Your task to perform on an android device: open device folders in google photos Image 0: 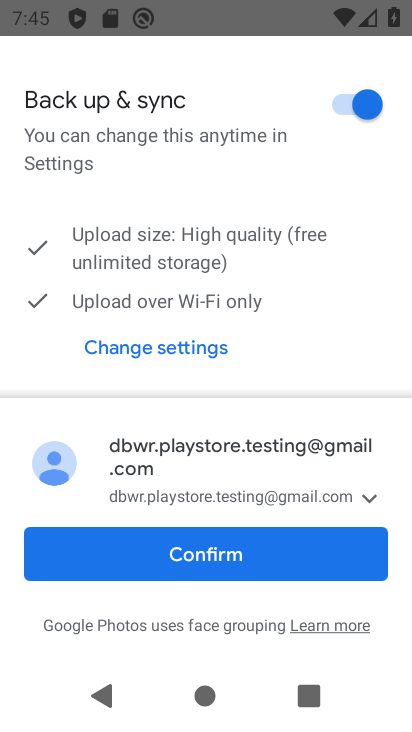
Step 0: press home button
Your task to perform on an android device: open device folders in google photos Image 1: 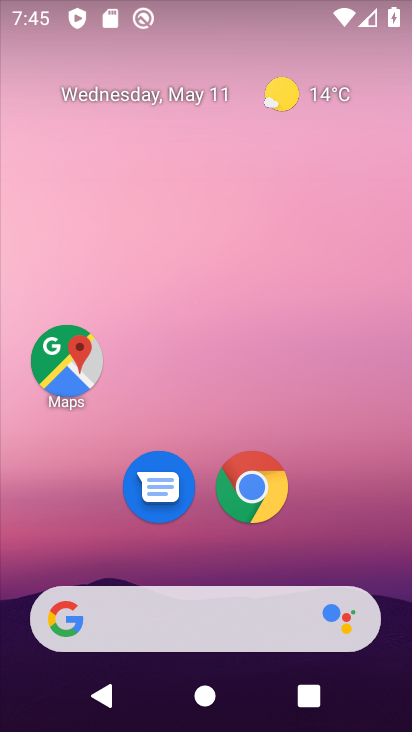
Step 1: drag from (173, 584) to (205, 143)
Your task to perform on an android device: open device folders in google photos Image 2: 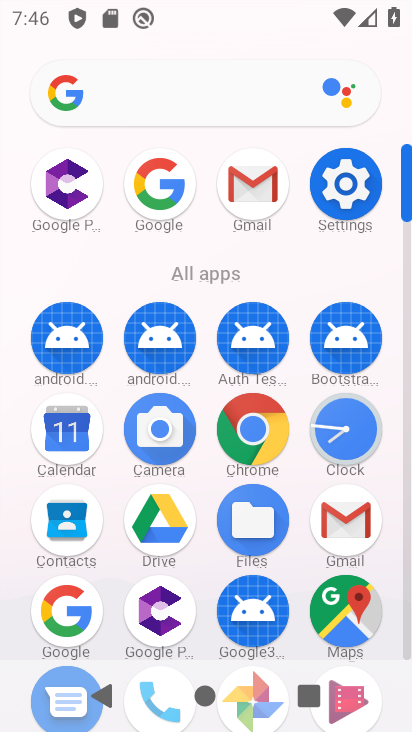
Step 2: drag from (297, 636) to (319, 212)
Your task to perform on an android device: open device folders in google photos Image 3: 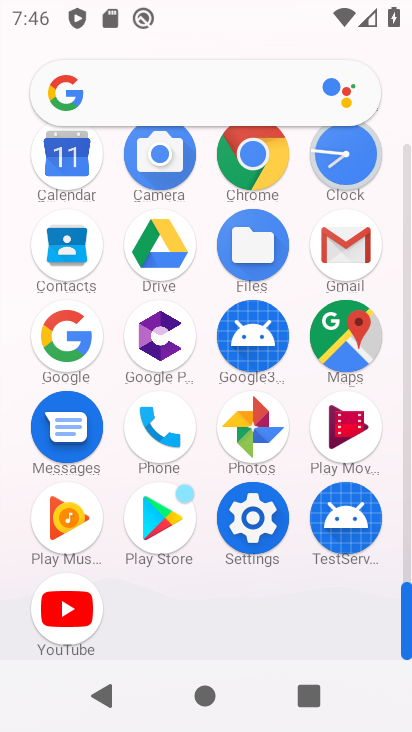
Step 3: click (259, 431)
Your task to perform on an android device: open device folders in google photos Image 4: 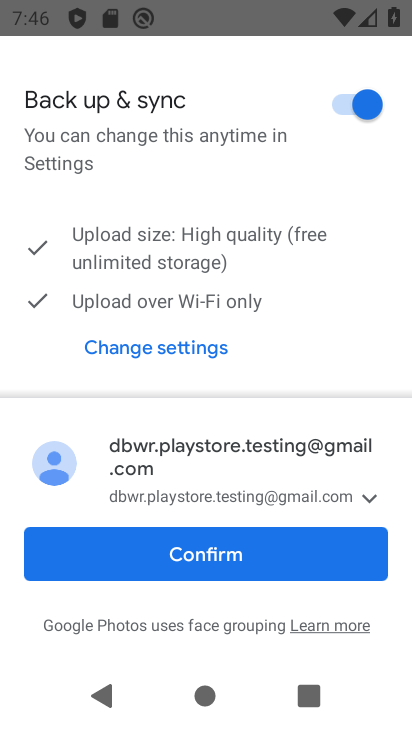
Step 4: click (228, 555)
Your task to perform on an android device: open device folders in google photos Image 5: 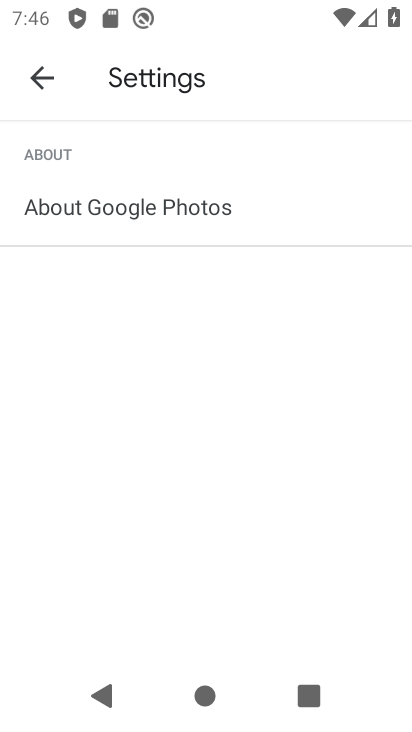
Step 5: click (48, 79)
Your task to perform on an android device: open device folders in google photos Image 6: 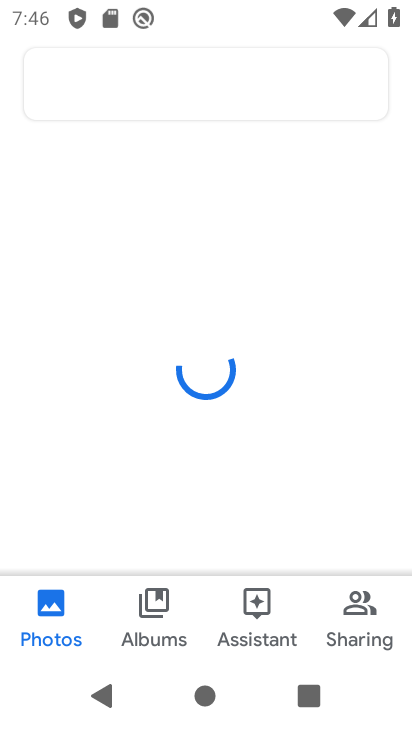
Step 6: click (40, 81)
Your task to perform on an android device: open device folders in google photos Image 7: 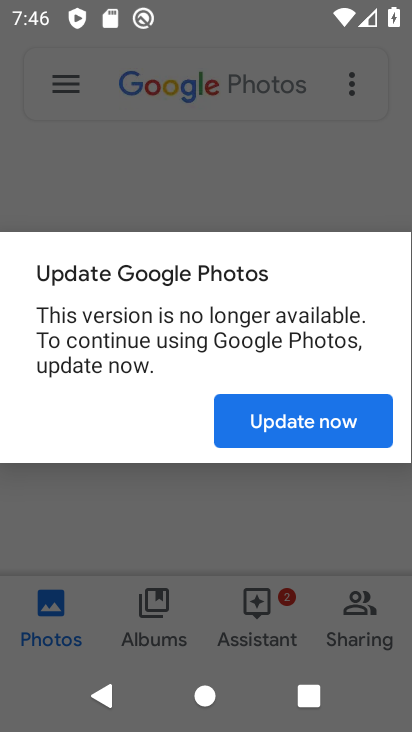
Step 7: click (258, 424)
Your task to perform on an android device: open device folders in google photos Image 8: 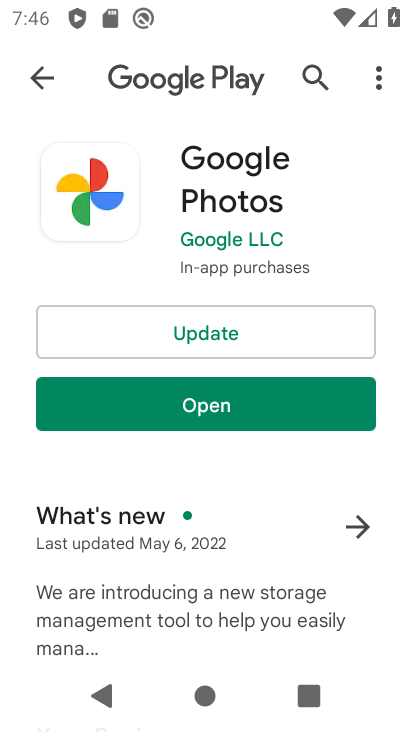
Step 8: click (208, 330)
Your task to perform on an android device: open device folders in google photos Image 9: 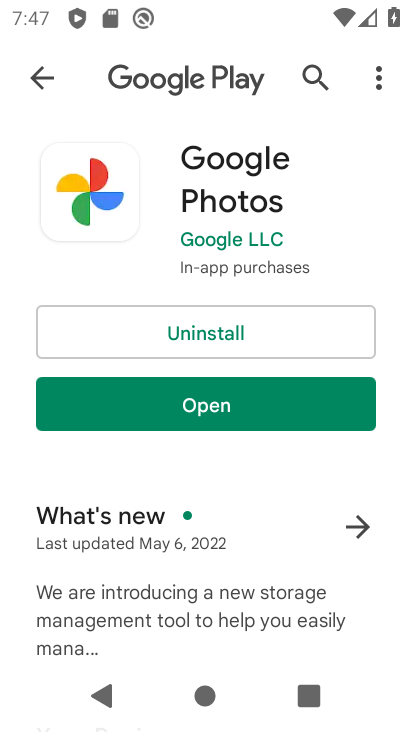
Step 9: click (225, 410)
Your task to perform on an android device: open device folders in google photos Image 10: 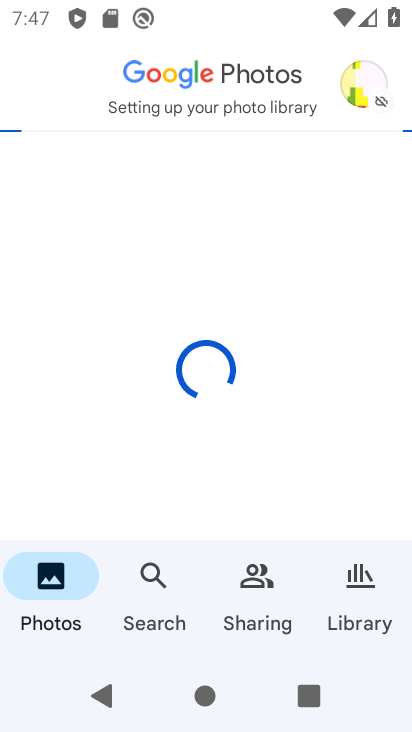
Step 10: click (367, 89)
Your task to perform on an android device: open device folders in google photos Image 11: 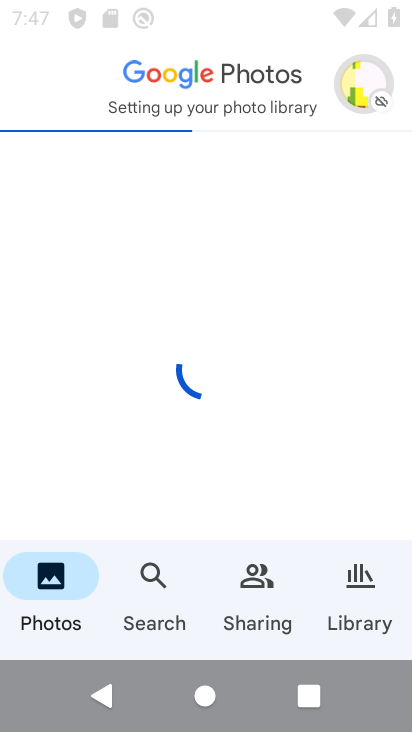
Step 11: click (356, 97)
Your task to perform on an android device: open device folders in google photos Image 12: 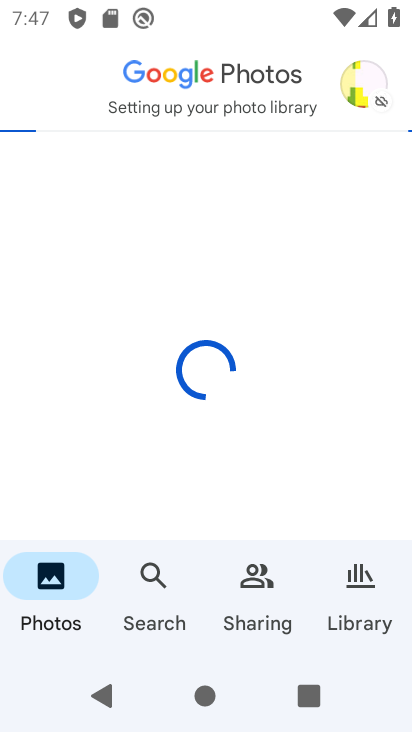
Step 12: click (357, 88)
Your task to perform on an android device: open device folders in google photos Image 13: 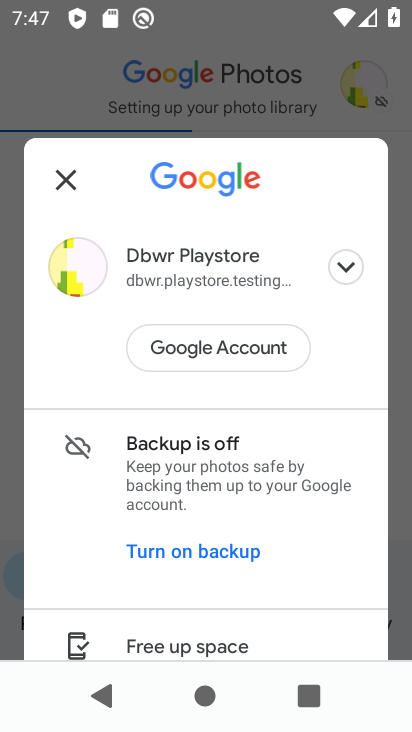
Step 13: drag from (243, 558) to (285, 306)
Your task to perform on an android device: open device folders in google photos Image 14: 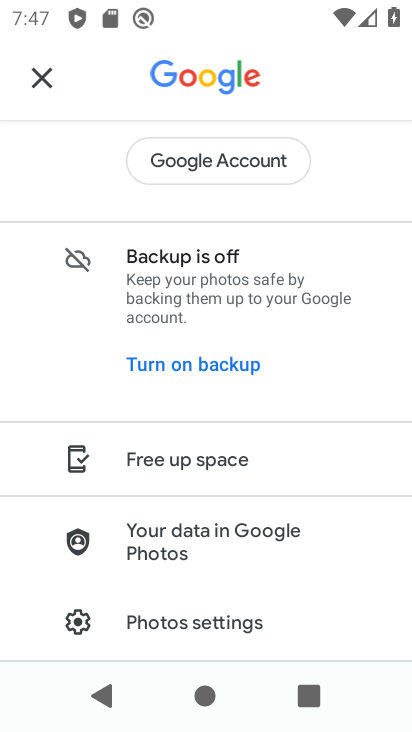
Step 14: drag from (255, 603) to (271, 363)
Your task to perform on an android device: open device folders in google photos Image 15: 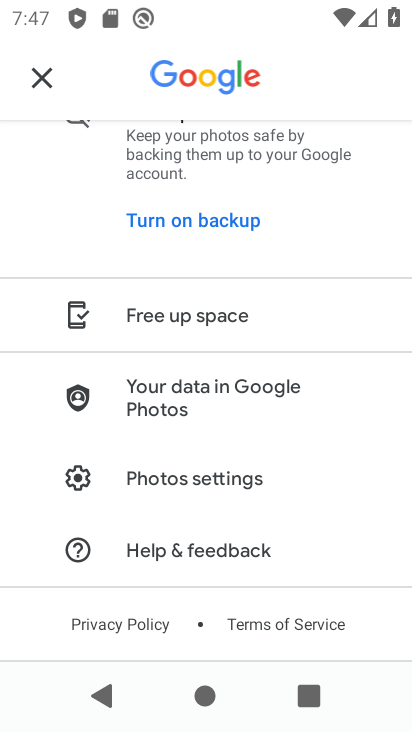
Step 15: click (184, 472)
Your task to perform on an android device: open device folders in google photos Image 16: 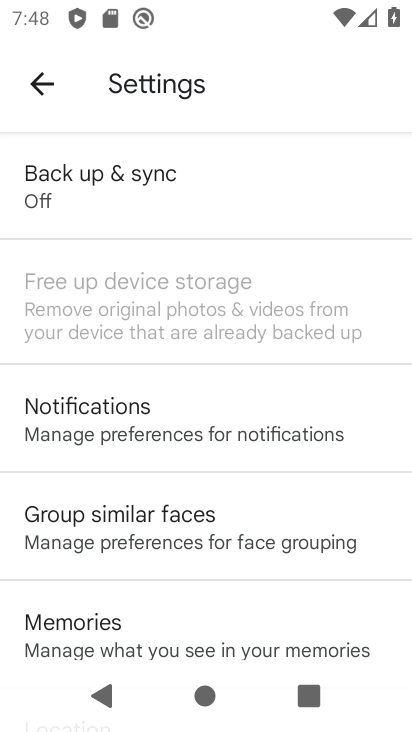
Step 16: drag from (234, 440) to (249, 341)
Your task to perform on an android device: open device folders in google photos Image 17: 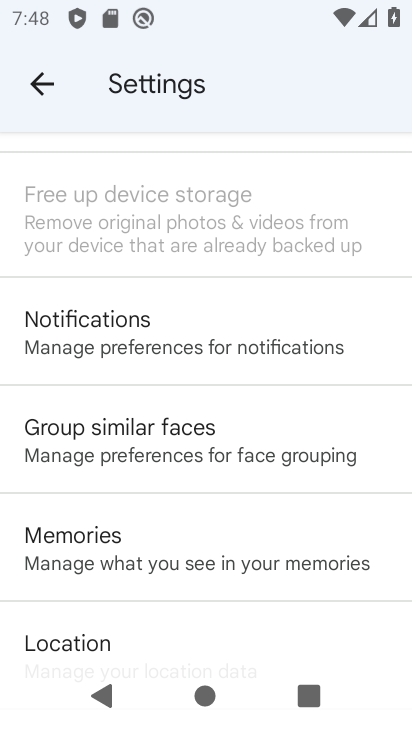
Step 17: click (48, 91)
Your task to perform on an android device: open device folders in google photos Image 18: 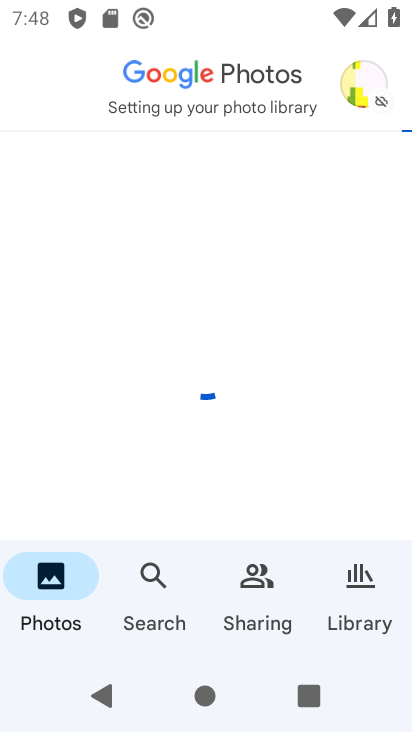
Step 18: task complete